Your task to perform on an android device: uninstall "Messages" Image 0: 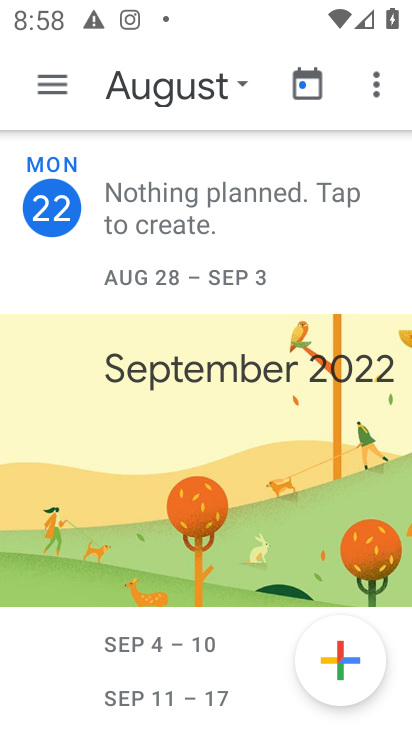
Step 0: press home button
Your task to perform on an android device: uninstall "Messages" Image 1: 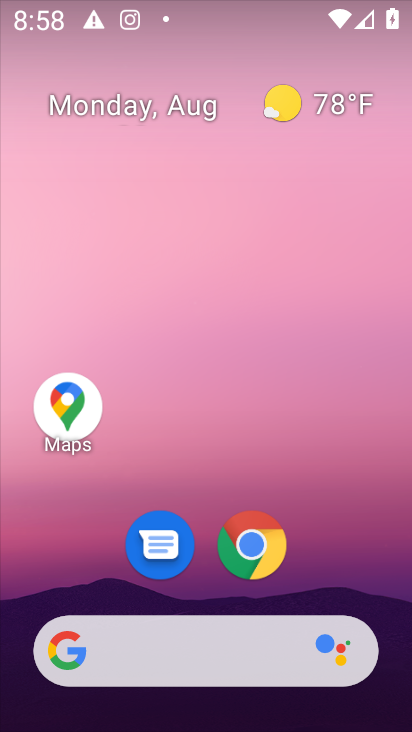
Step 1: drag from (348, 584) to (366, 54)
Your task to perform on an android device: uninstall "Messages" Image 2: 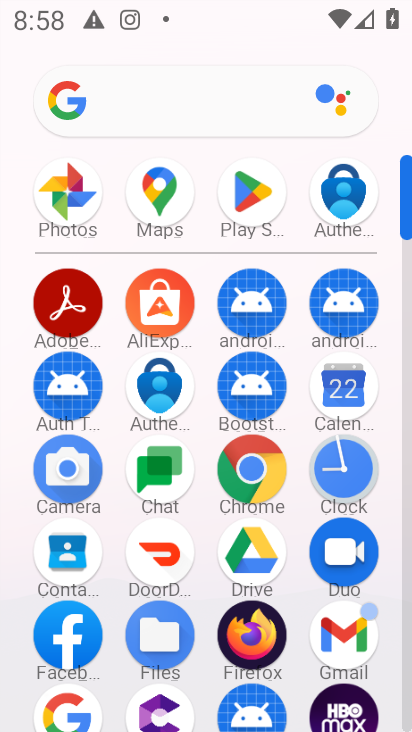
Step 2: click (261, 193)
Your task to perform on an android device: uninstall "Messages" Image 3: 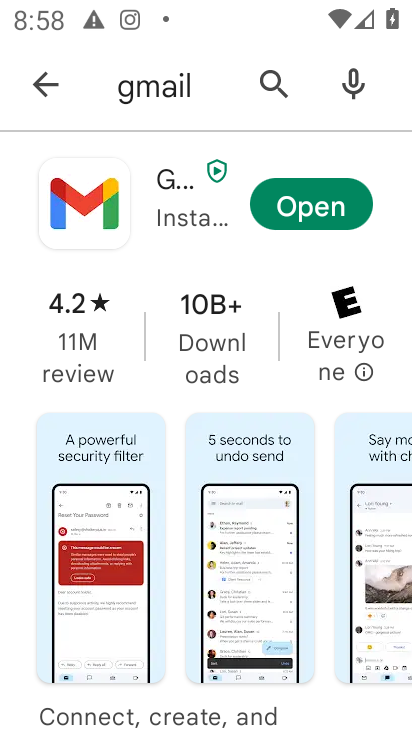
Step 3: press back button
Your task to perform on an android device: uninstall "Messages" Image 4: 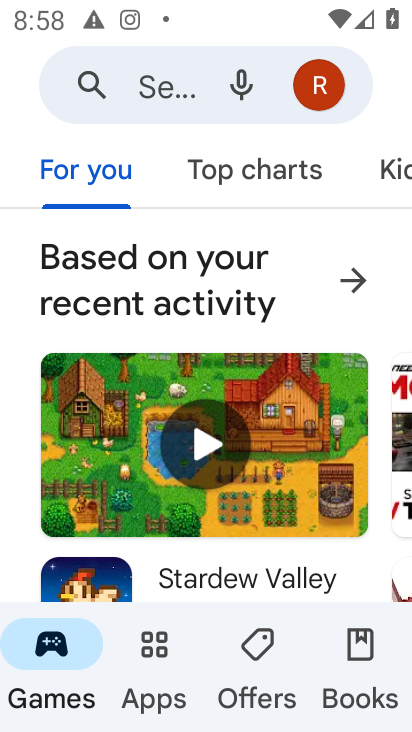
Step 4: click (156, 92)
Your task to perform on an android device: uninstall "Messages" Image 5: 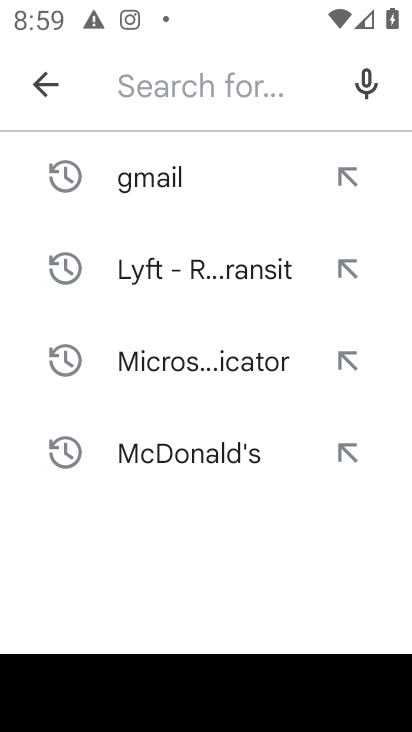
Step 5: type "messages"
Your task to perform on an android device: uninstall "Messages" Image 6: 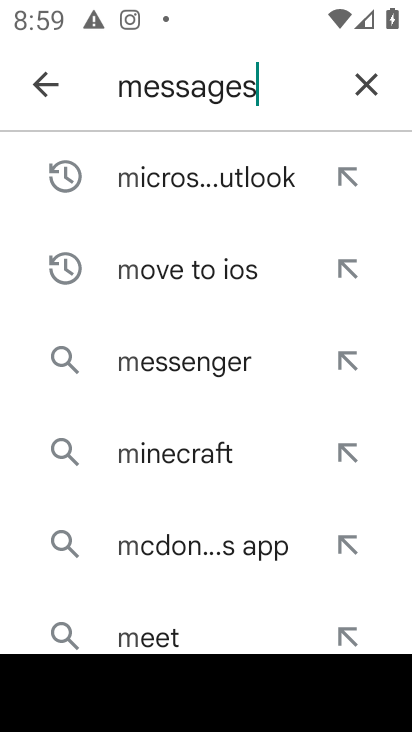
Step 6: press enter
Your task to perform on an android device: uninstall "Messages" Image 7: 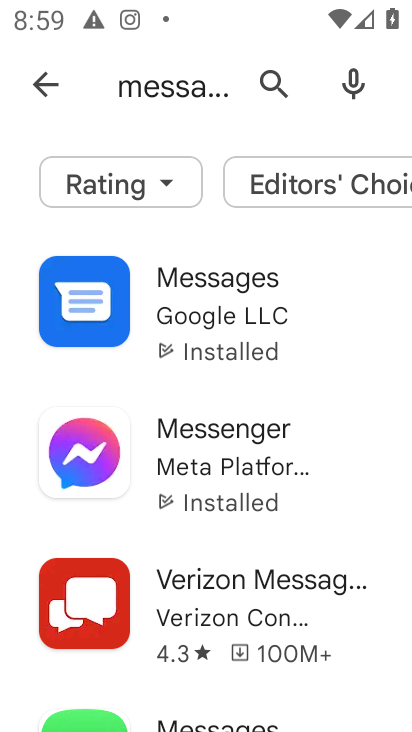
Step 7: click (225, 319)
Your task to perform on an android device: uninstall "Messages" Image 8: 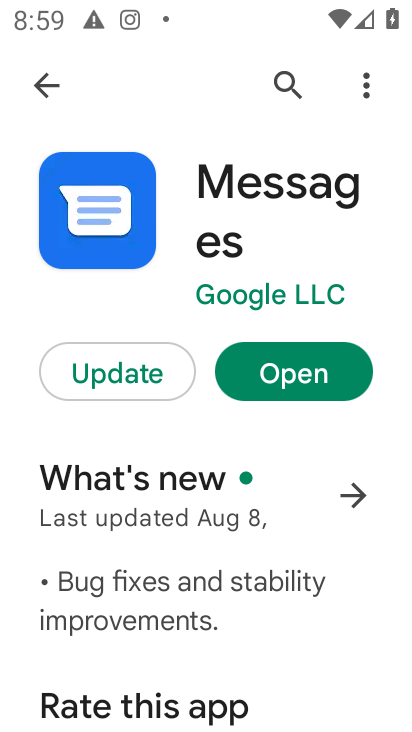
Step 8: task complete